Your task to perform on an android device: check storage Image 0: 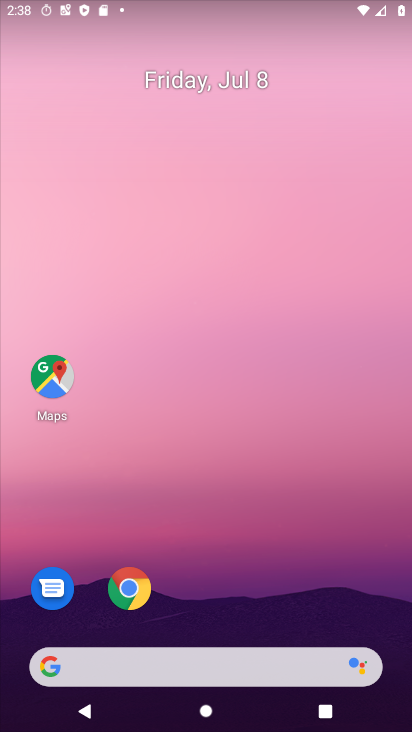
Step 0: press home button
Your task to perform on an android device: check storage Image 1: 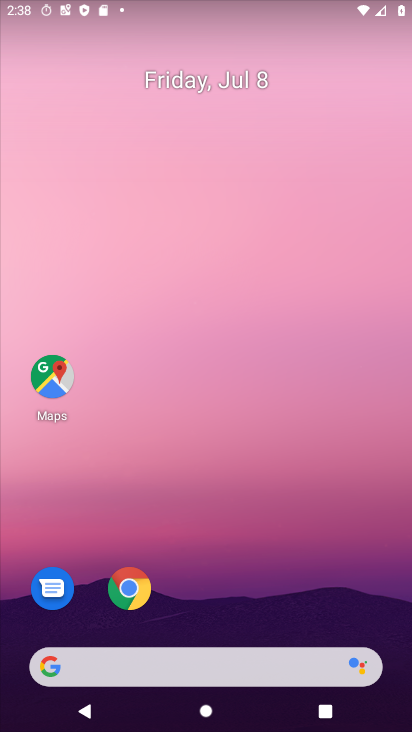
Step 1: drag from (251, 626) to (203, 174)
Your task to perform on an android device: check storage Image 2: 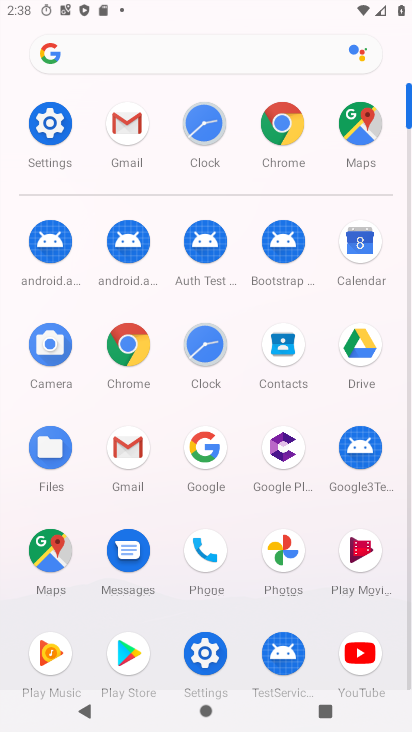
Step 2: click (56, 121)
Your task to perform on an android device: check storage Image 3: 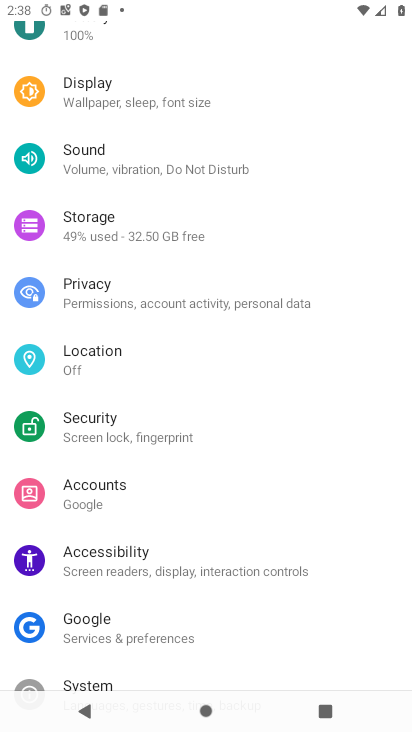
Step 3: click (104, 229)
Your task to perform on an android device: check storage Image 4: 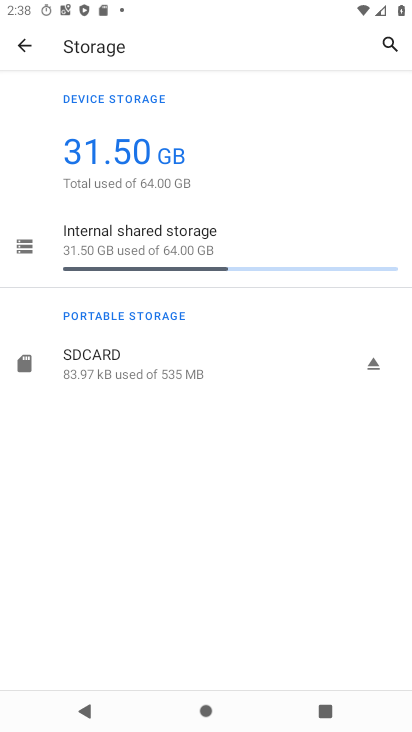
Step 4: task complete